Your task to perform on an android device: Open the calendar and show me this week's events? Image 0: 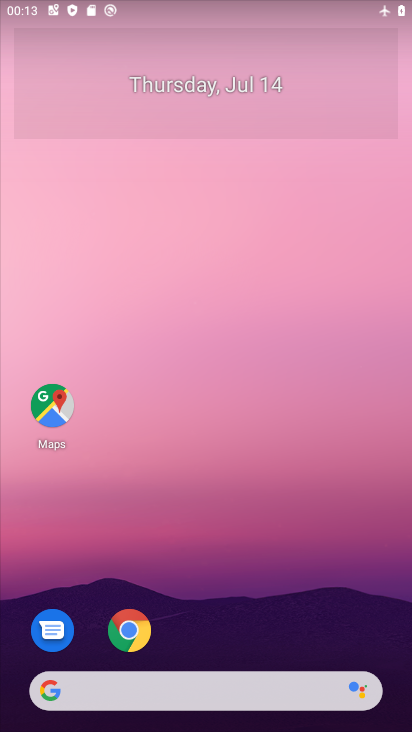
Step 0: drag from (349, 599) to (376, 52)
Your task to perform on an android device: Open the calendar and show me this week's events? Image 1: 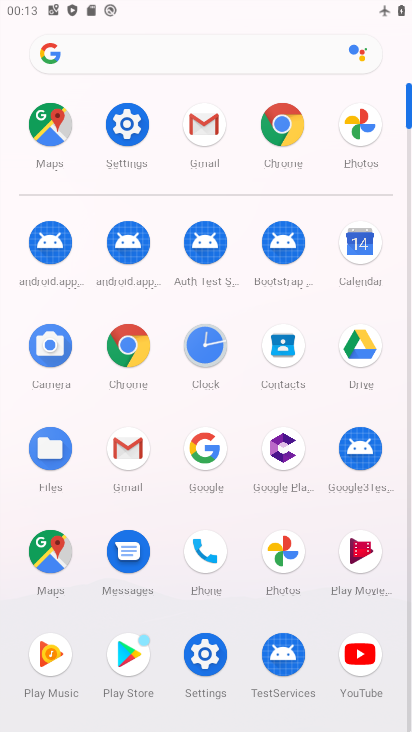
Step 1: click (361, 245)
Your task to perform on an android device: Open the calendar and show me this week's events? Image 2: 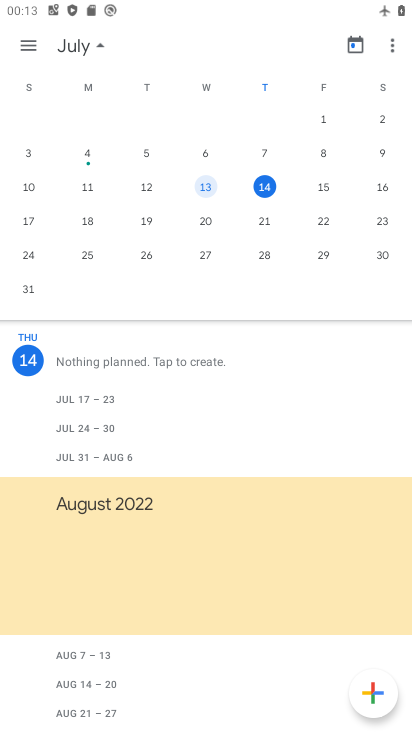
Step 2: task complete